Your task to perform on an android device: Go to Amazon Image 0: 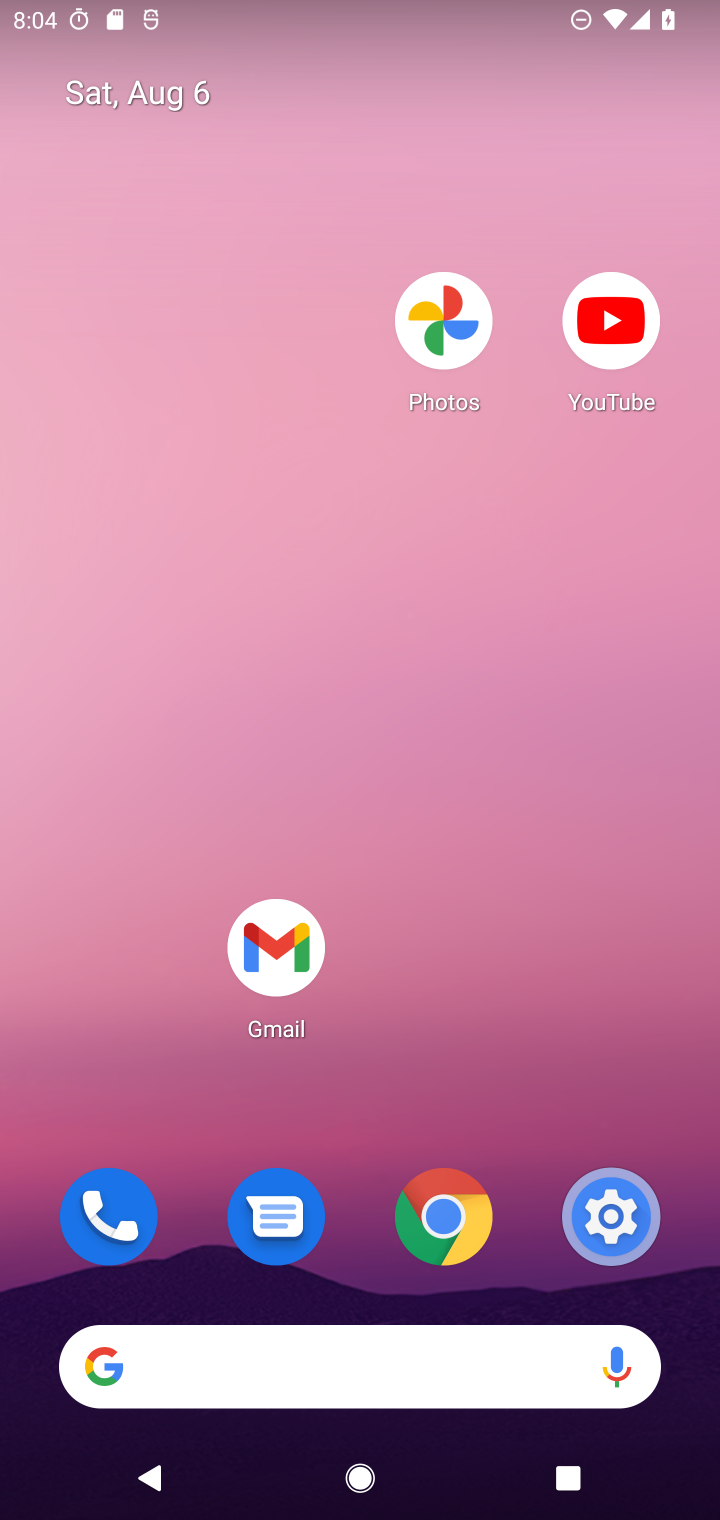
Step 0: drag from (537, 1046) to (330, 150)
Your task to perform on an android device: Go to Amazon Image 1: 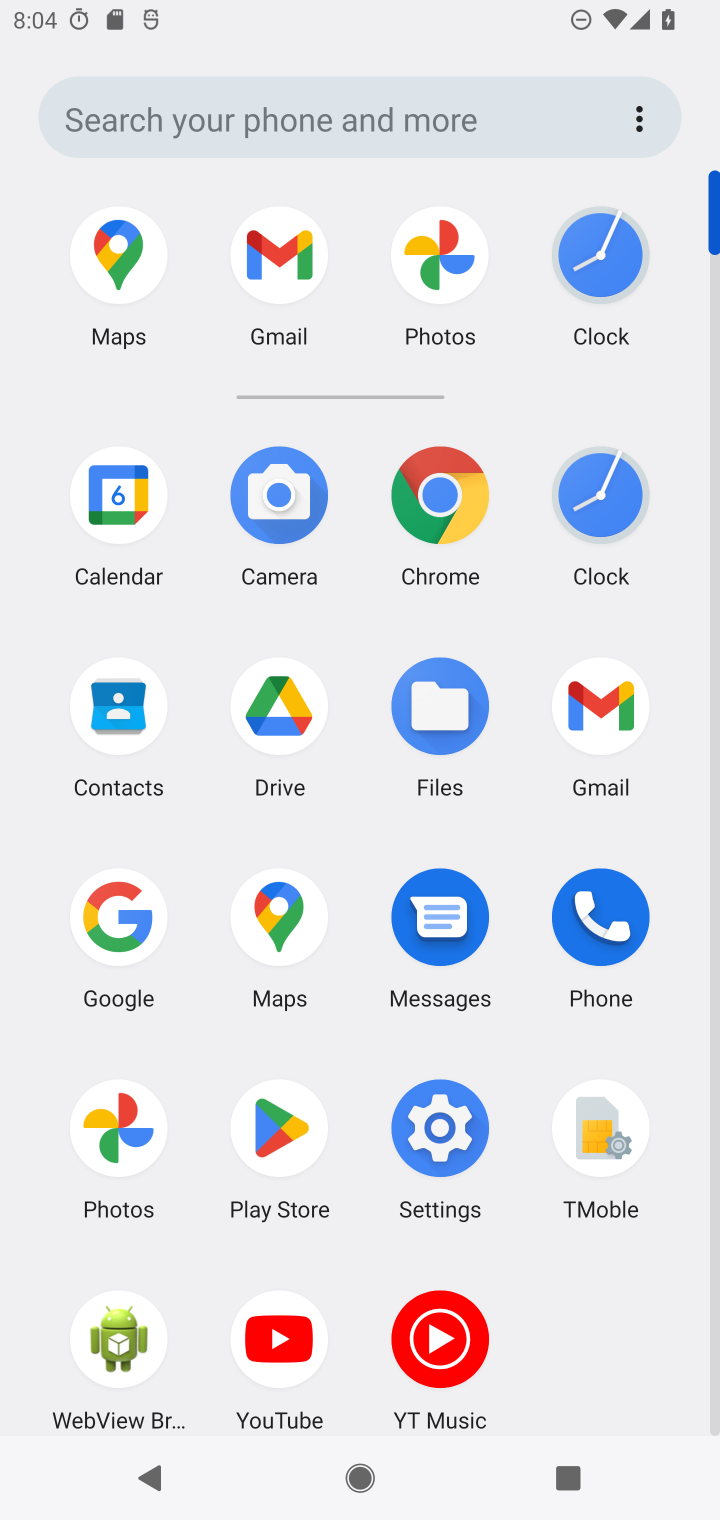
Step 1: click (451, 509)
Your task to perform on an android device: Go to Amazon Image 2: 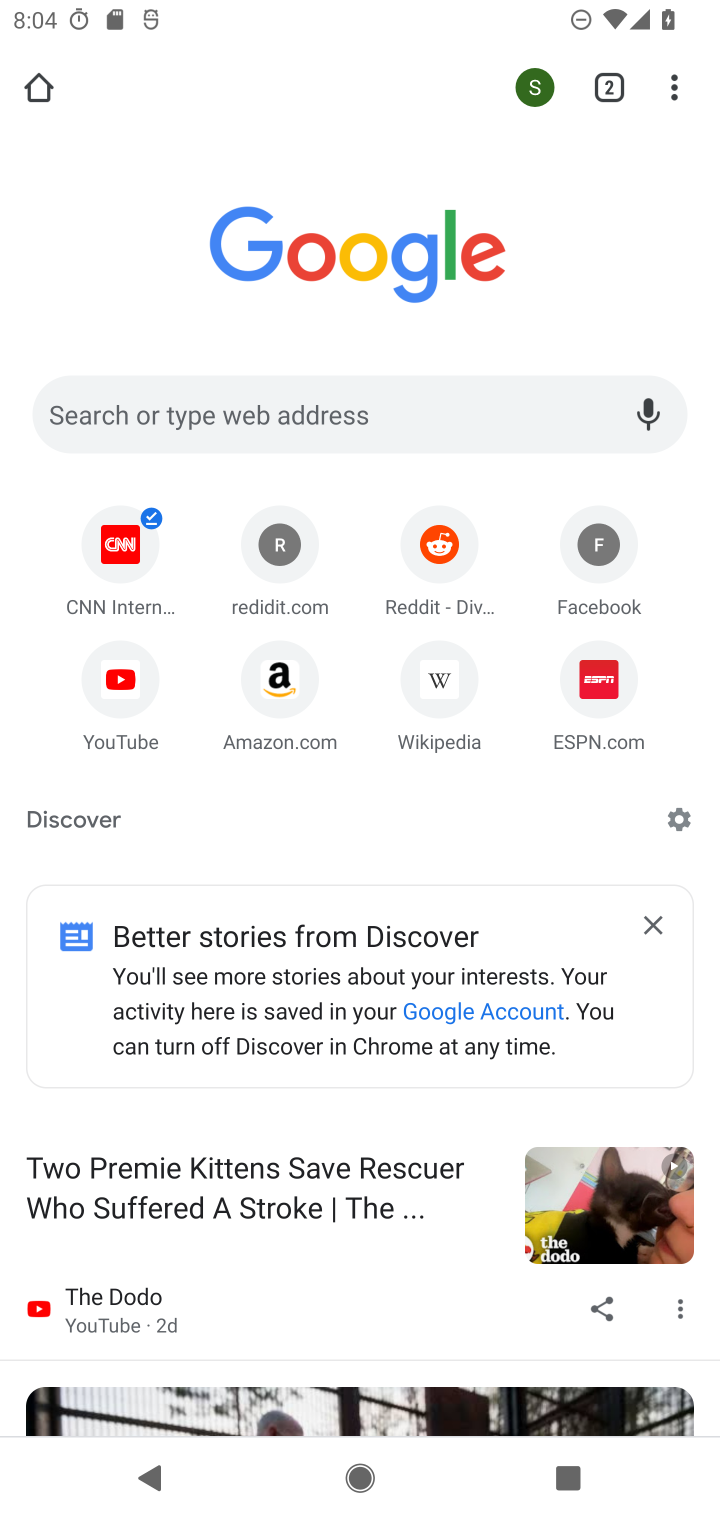
Step 2: click (301, 683)
Your task to perform on an android device: Go to Amazon Image 3: 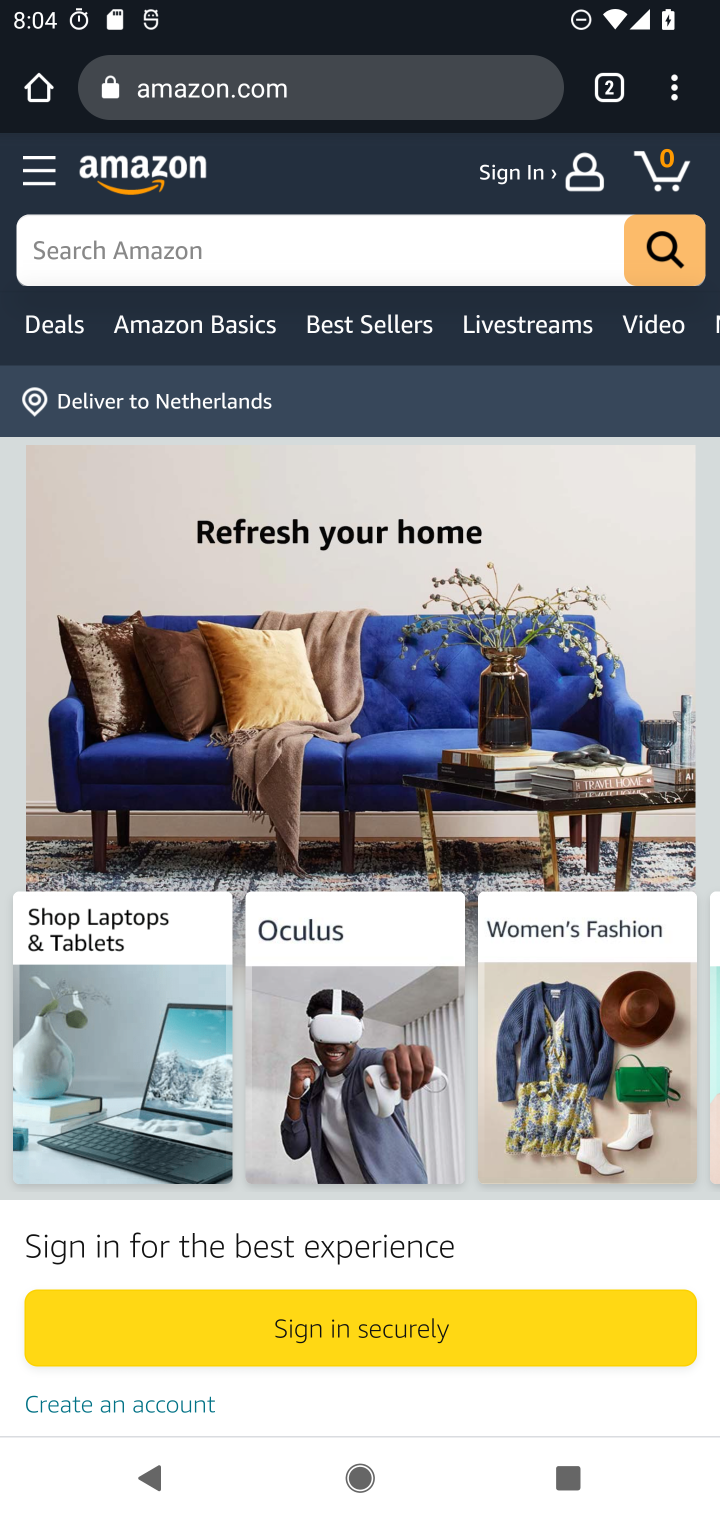
Step 3: task complete